Your task to perform on an android device: Go to ESPN.com Image 0: 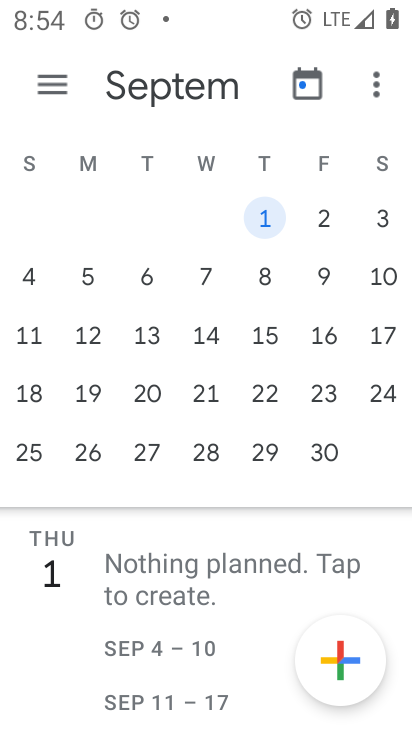
Step 0: press home button
Your task to perform on an android device: Go to ESPN.com Image 1: 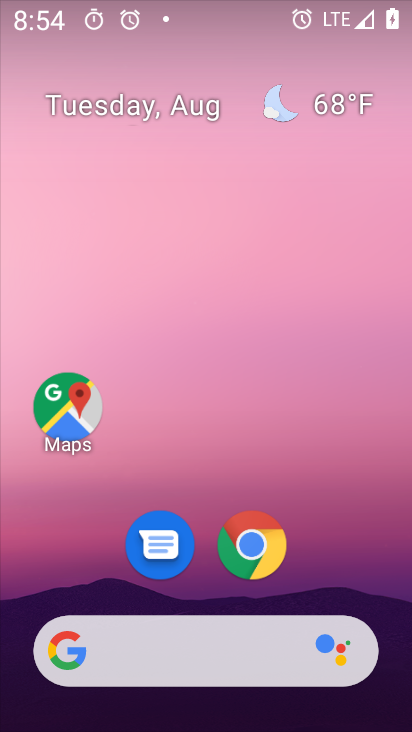
Step 1: drag from (206, 623) to (216, 153)
Your task to perform on an android device: Go to ESPN.com Image 2: 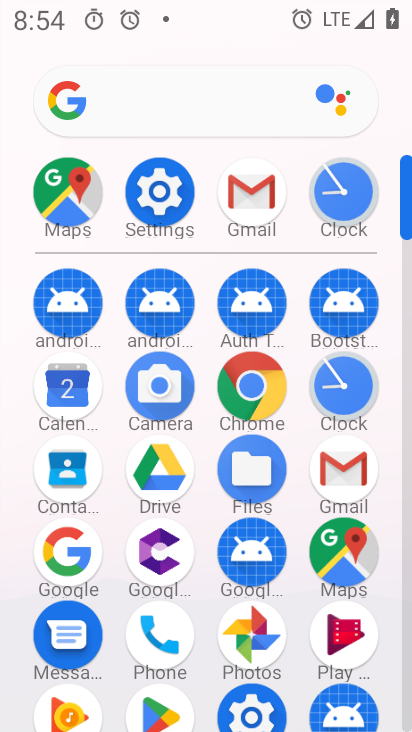
Step 2: click (247, 389)
Your task to perform on an android device: Go to ESPN.com Image 3: 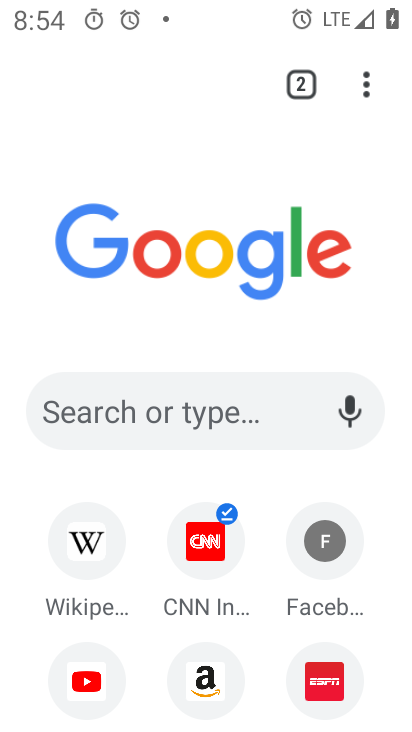
Step 3: drag from (227, 515) to (230, 248)
Your task to perform on an android device: Go to ESPN.com Image 4: 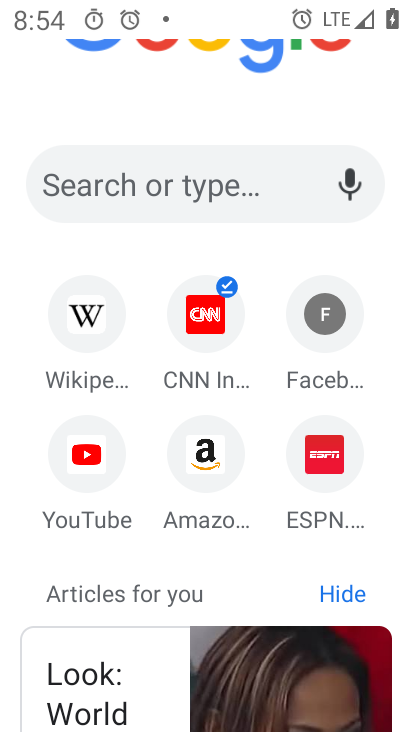
Step 4: click (230, 260)
Your task to perform on an android device: Go to ESPN.com Image 5: 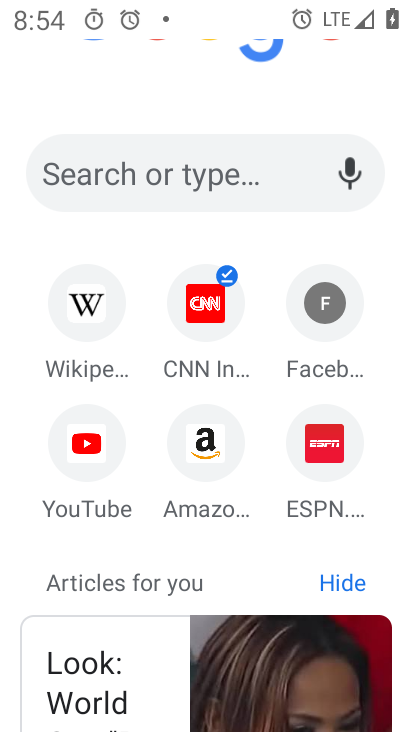
Step 5: click (302, 452)
Your task to perform on an android device: Go to ESPN.com Image 6: 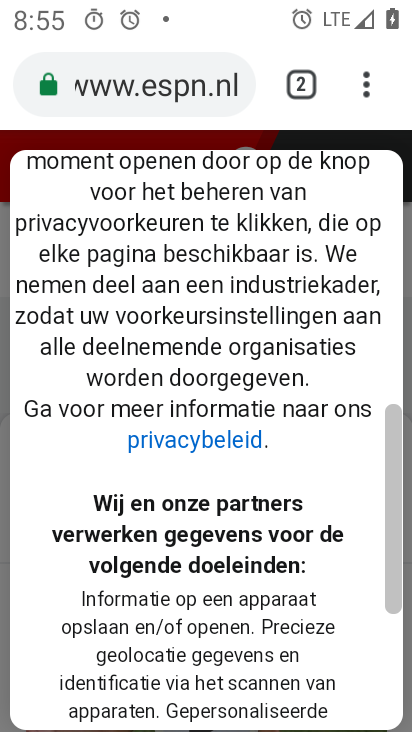
Step 6: task complete